Your task to perform on an android device: When is my next appointment? Image 0: 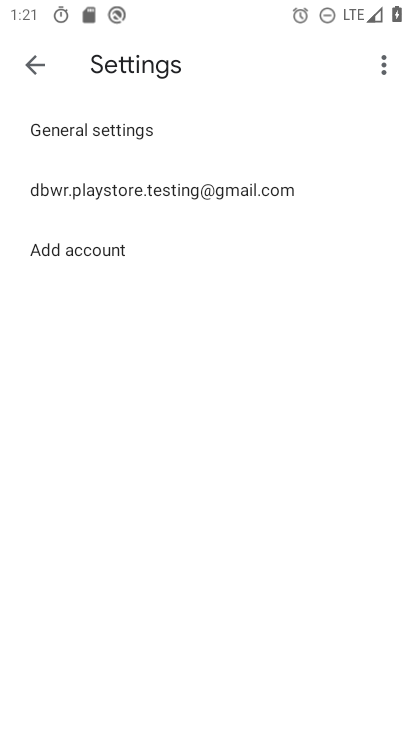
Step 0: press home button
Your task to perform on an android device: When is my next appointment? Image 1: 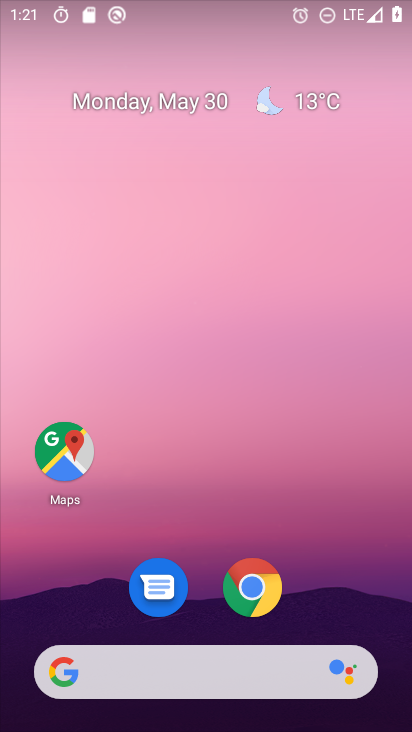
Step 1: drag from (316, 551) to (291, 88)
Your task to perform on an android device: When is my next appointment? Image 2: 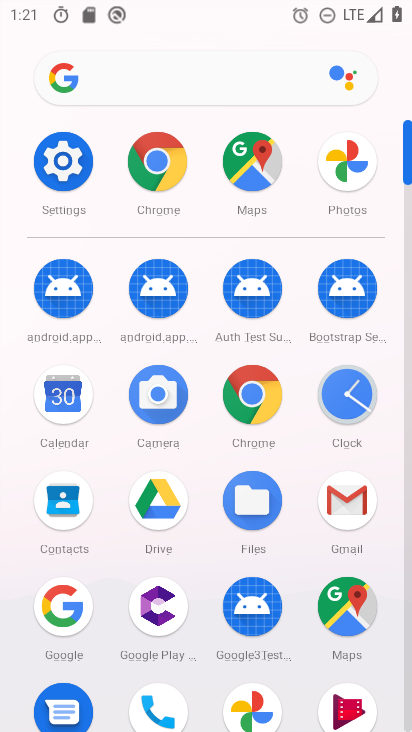
Step 2: click (61, 408)
Your task to perform on an android device: When is my next appointment? Image 3: 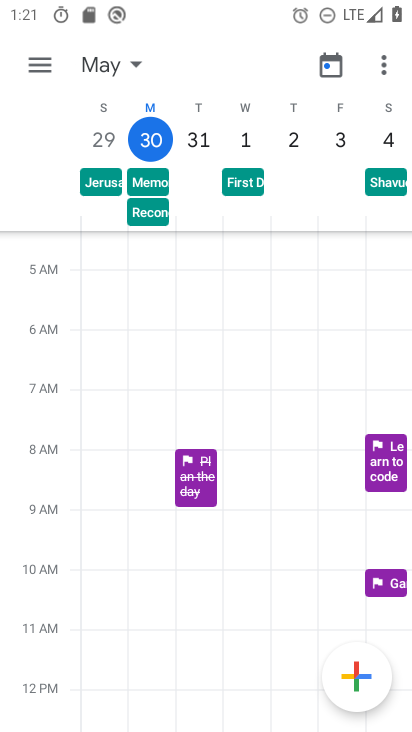
Step 3: task complete